Your task to perform on an android device: Clear the shopping cart on ebay. Image 0: 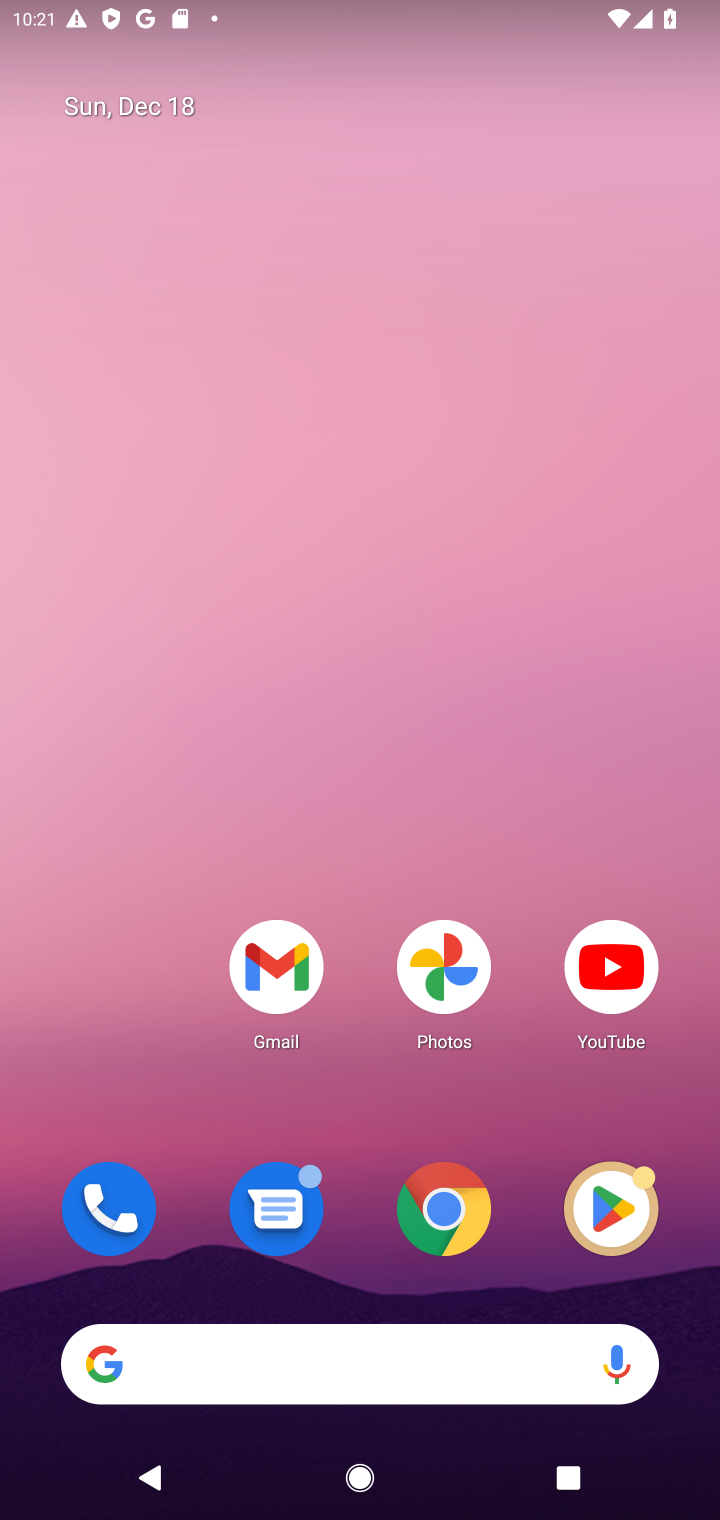
Step 0: click (447, 1216)
Your task to perform on an android device: Clear the shopping cart on ebay. Image 1: 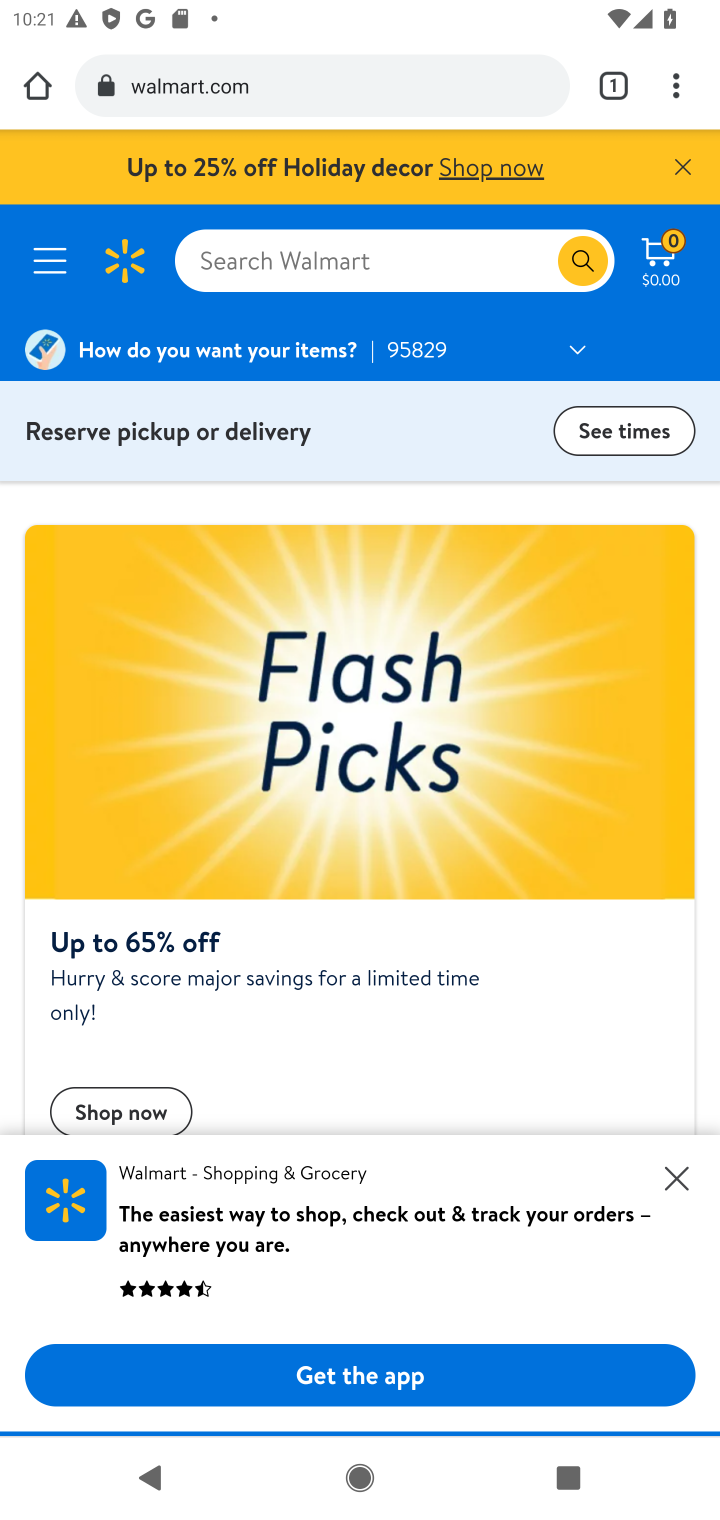
Step 1: click (268, 80)
Your task to perform on an android device: Clear the shopping cart on ebay. Image 2: 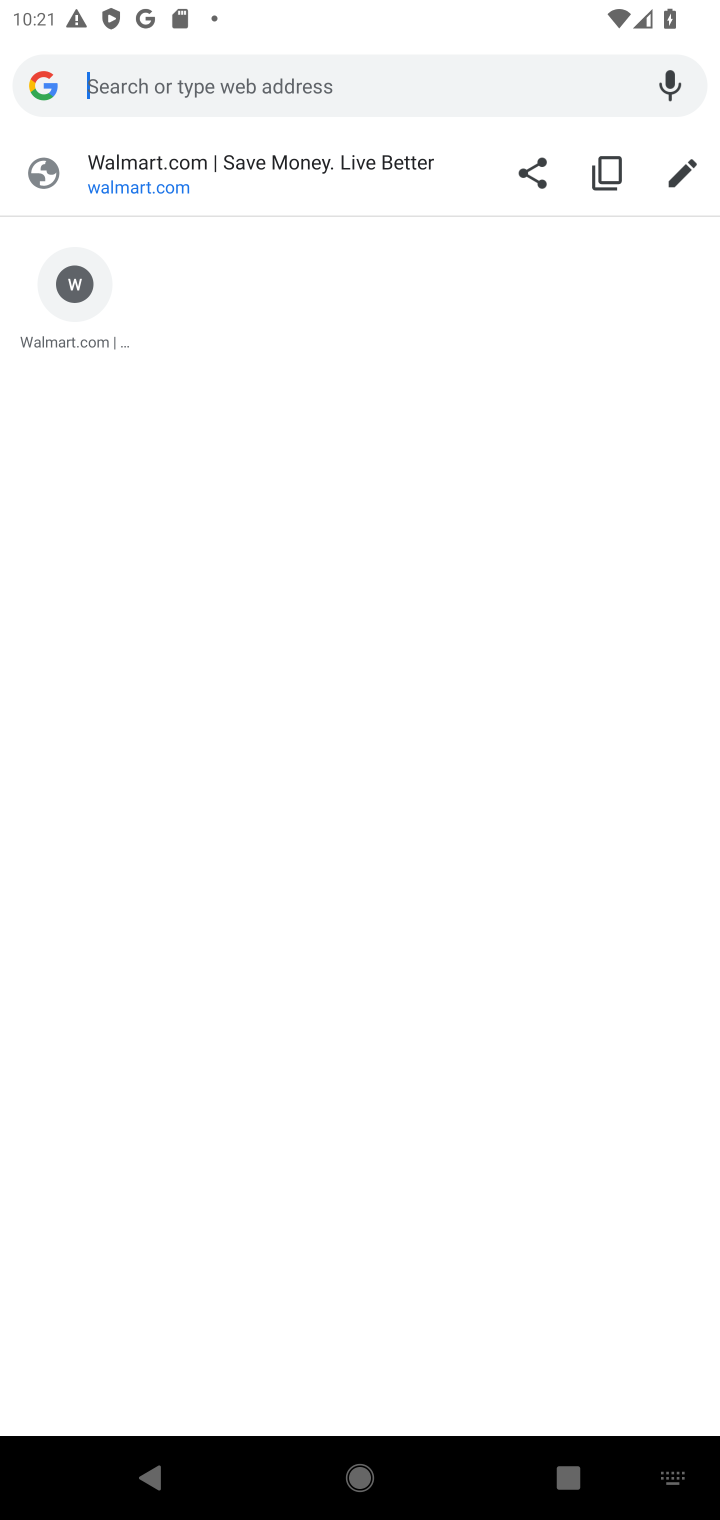
Step 2: type "EBAY"
Your task to perform on an android device: Clear the shopping cart on ebay. Image 3: 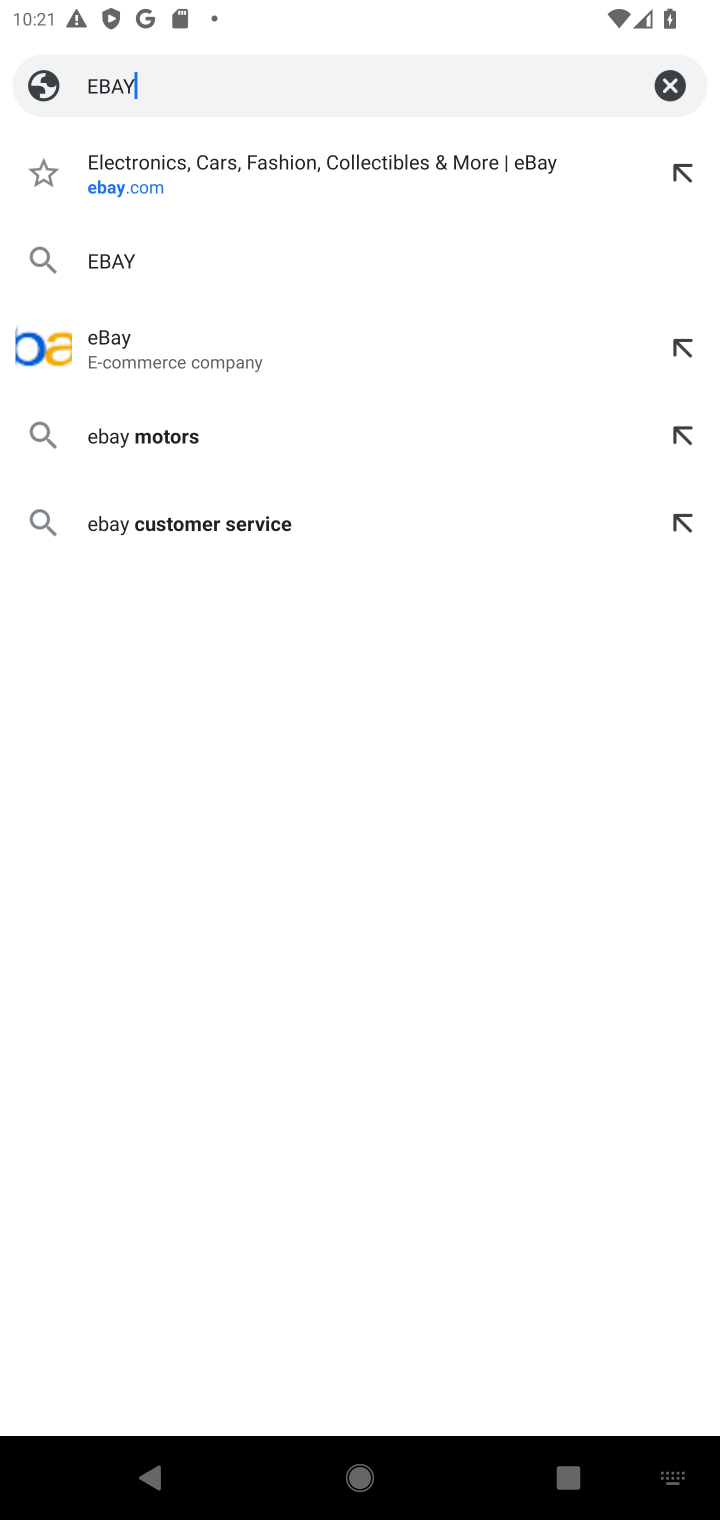
Step 3: click (216, 184)
Your task to perform on an android device: Clear the shopping cart on ebay. Image 4: 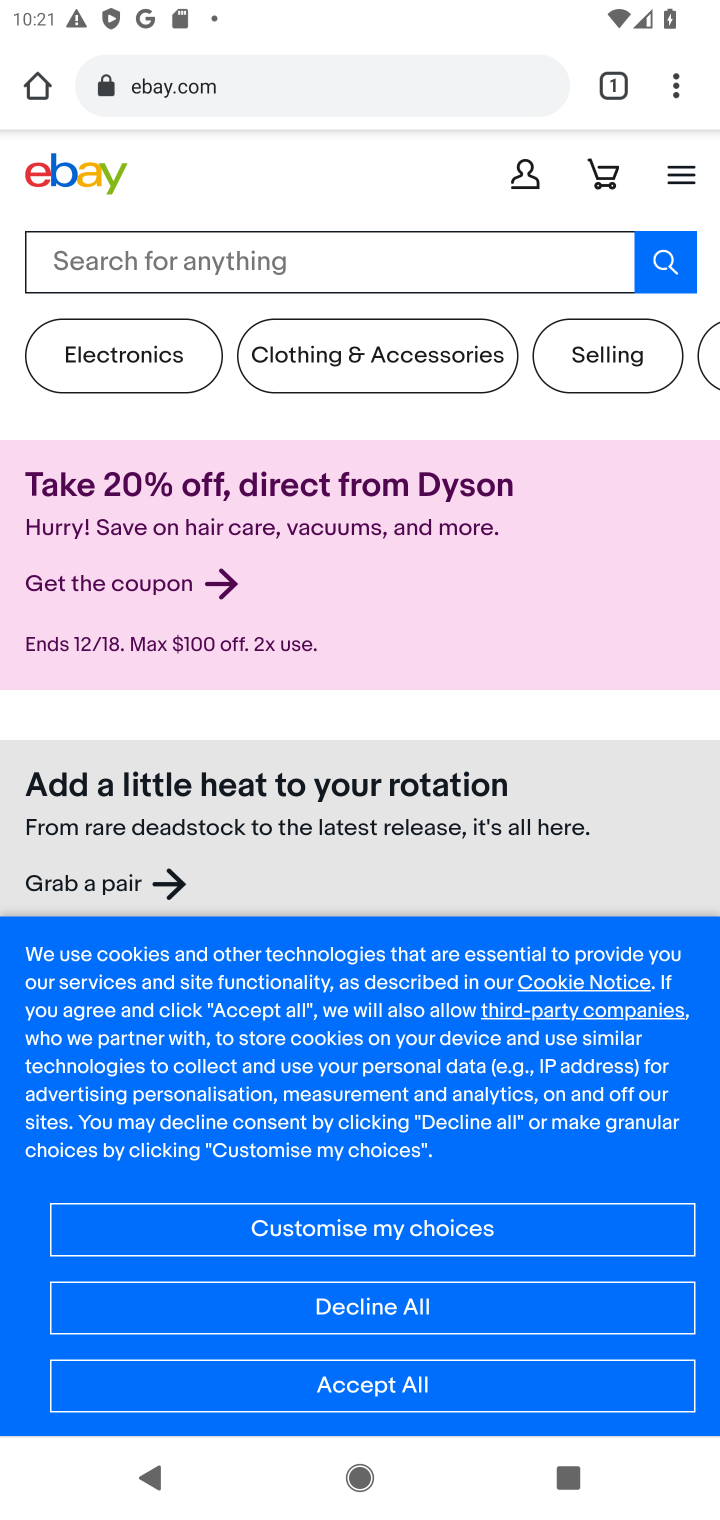
Step 4: click (349, 1394)
Your task to perform on an android device: Clear the shopping cart on ebay. Image 5: 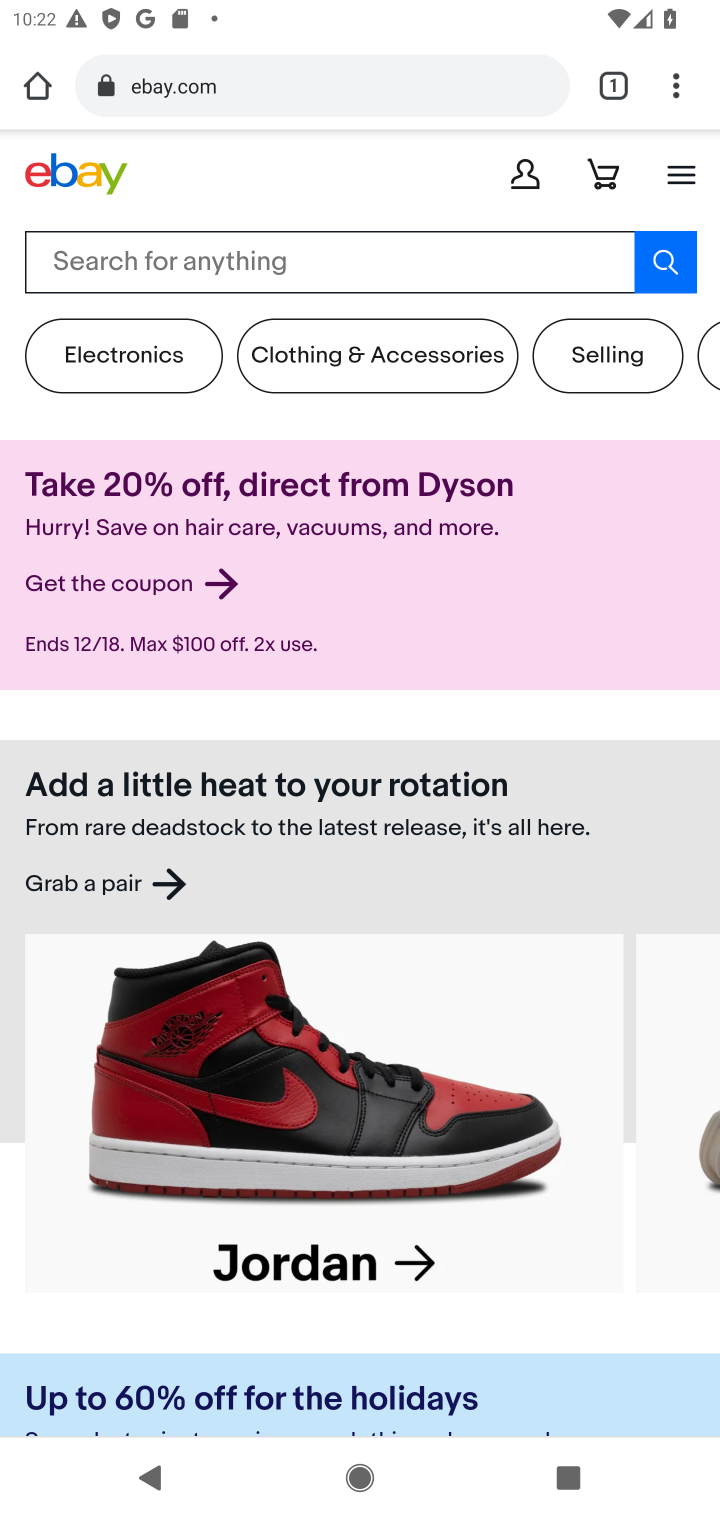
Step 5: click (596, 167)
Your task to perform on an android device: Clear the shopping cart on ebay. Image 6: 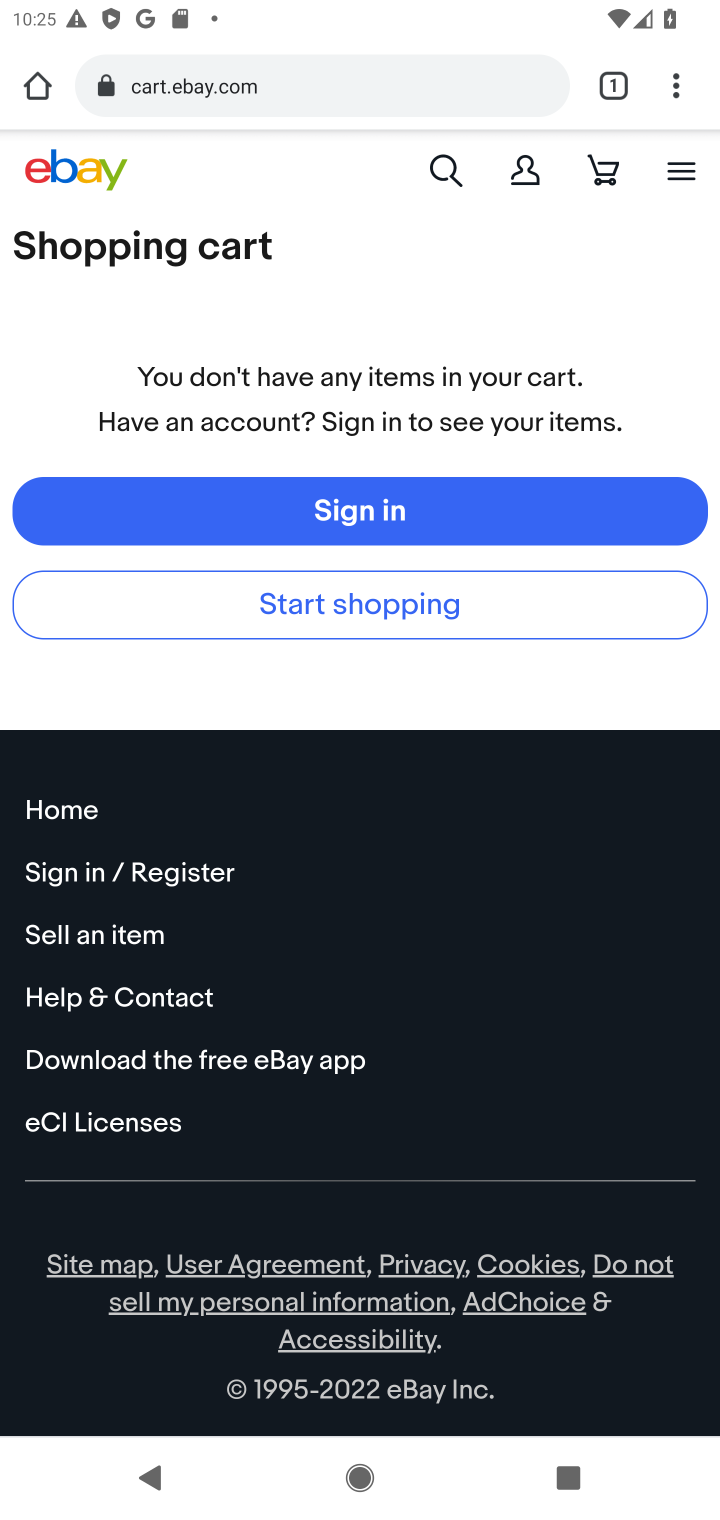
Step 6: task complete